Your task to perform on an android device: Search for Italian restaurants on Maps Image 0: 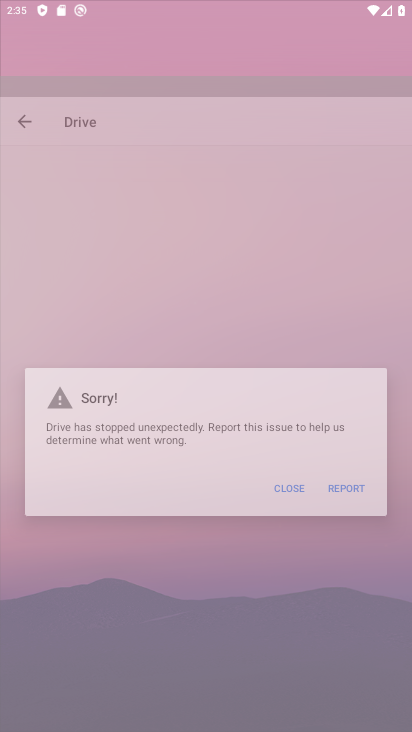
Step 0: click (206, 267)
Your task to perform on an android device: Search for Italian restaurants on Maps Image 1: 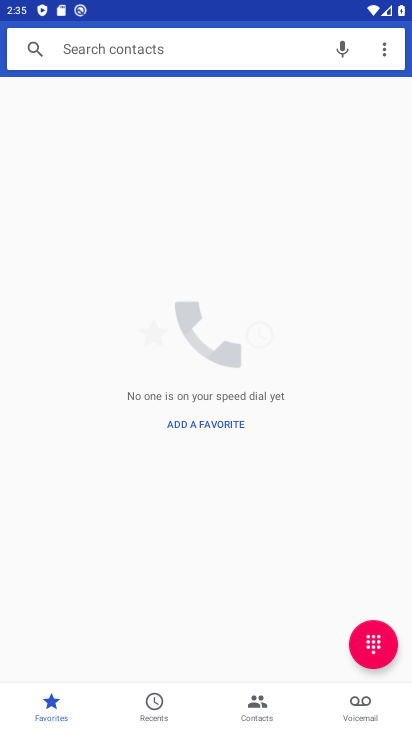
Step 1: press home button
Your task to perform on an android device: Search for Italian restaurants on Maps Image 2: 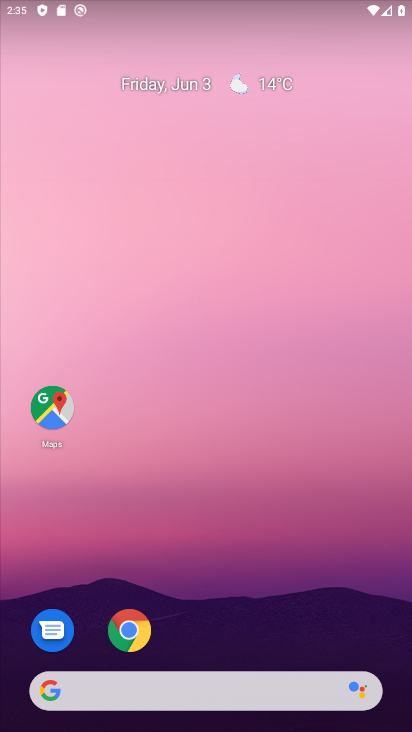
Step 2: click (51, 415)
Your task to perform on an android device: Search for Italian restaurants on Maps Image 3: 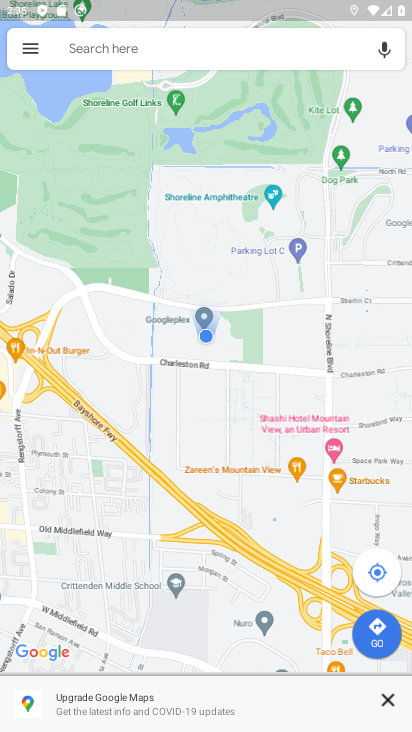
Step 3: click (120, 48)
Your task to perform on an android device: Search for Italian restaurants on Maps Image 4: 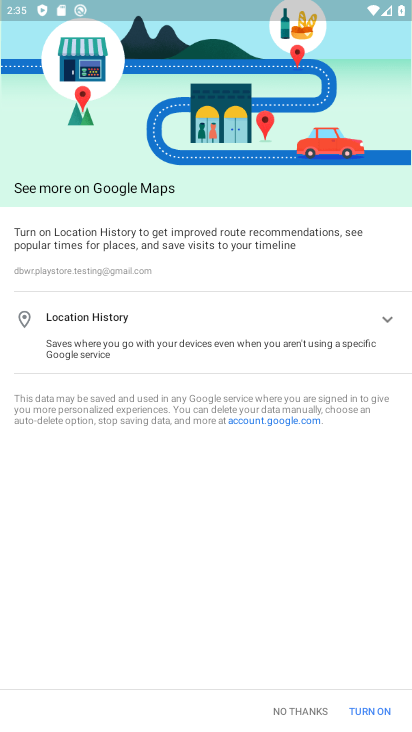
Step 4: click (294, 707)
Your task to perform on an android device: Search for Italian restaurants on Maps Image 5: 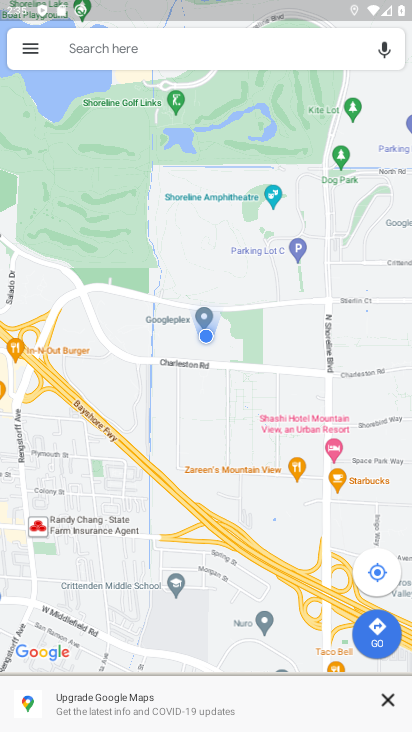
Step 5: click (185, 53)
Your task to perform on an android device: Search for Italian restaurants on Maps Image 6: 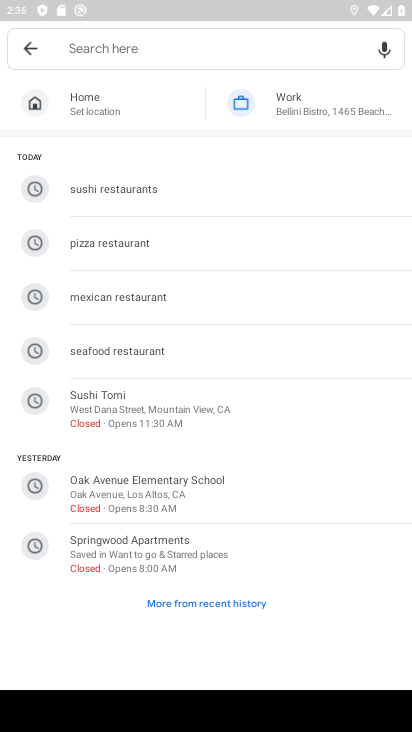
Step 6: type "Italian restaurants"
Your task to perform on an android device: Search for Italian restaurants on Maps Image 7: 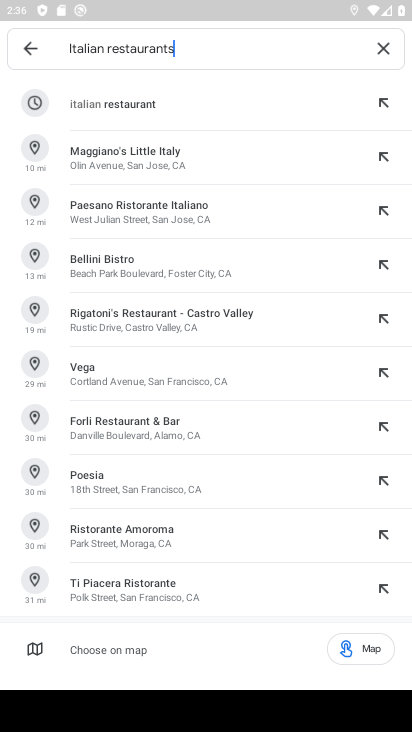
Step 7: click (141, 106)
Your task to perform on an android device: Search for Italian restaurants on Maps Image 8: 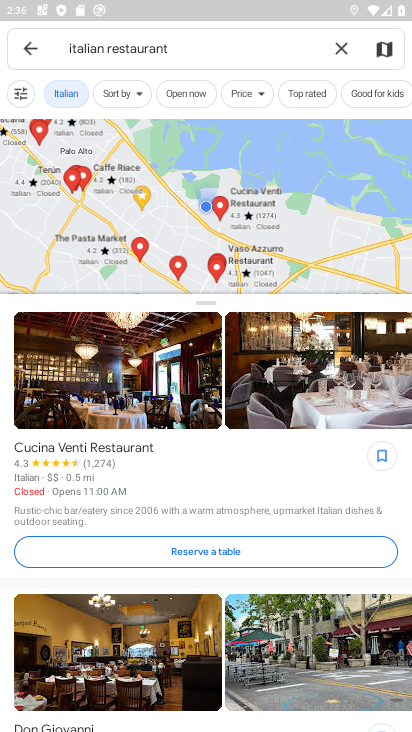
Step 8: task complete